Your task to perform on an android device: open the mobile data screen to see how much data has been used Image 0: 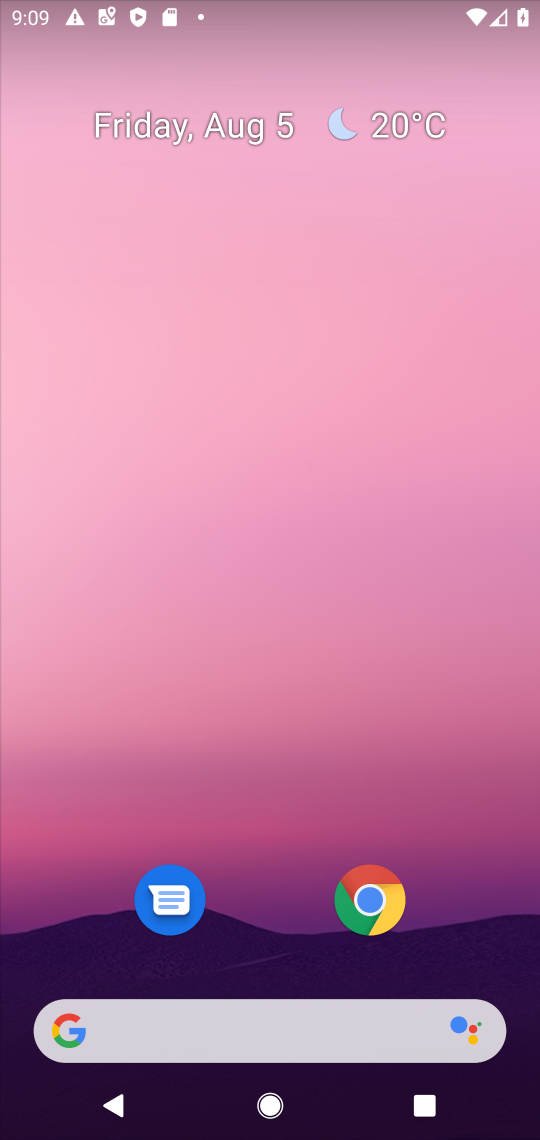
Step 0: press home button
Your task to perform on an android device: open the mobile data screen to see how much data has been used Image 1: 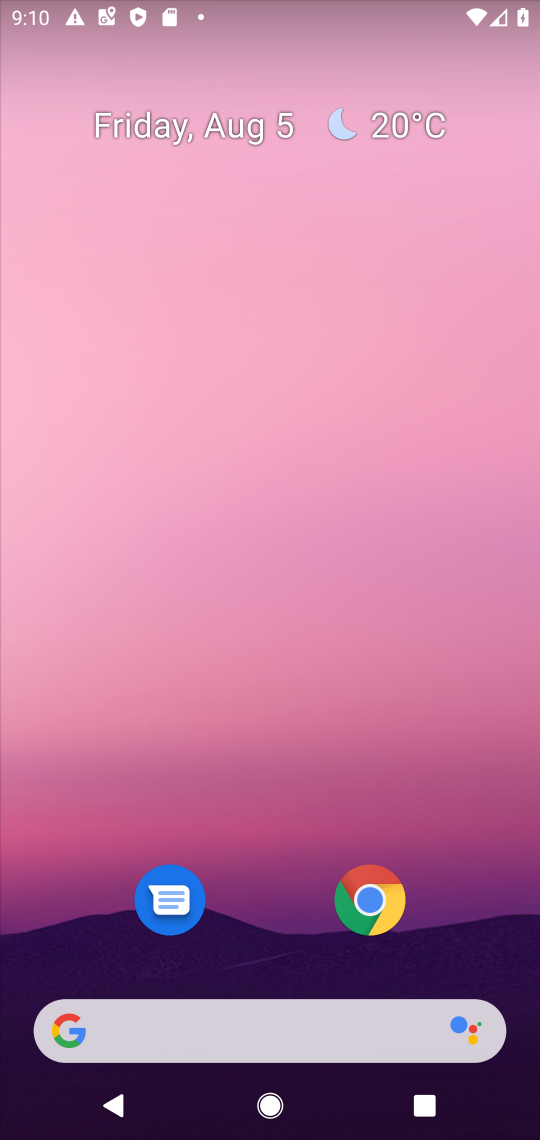
Step 1: drag from (506, 15) to (429, 947)
Your task to perform on an android device: open the mobile data screen to see how much data has been used Image 2: 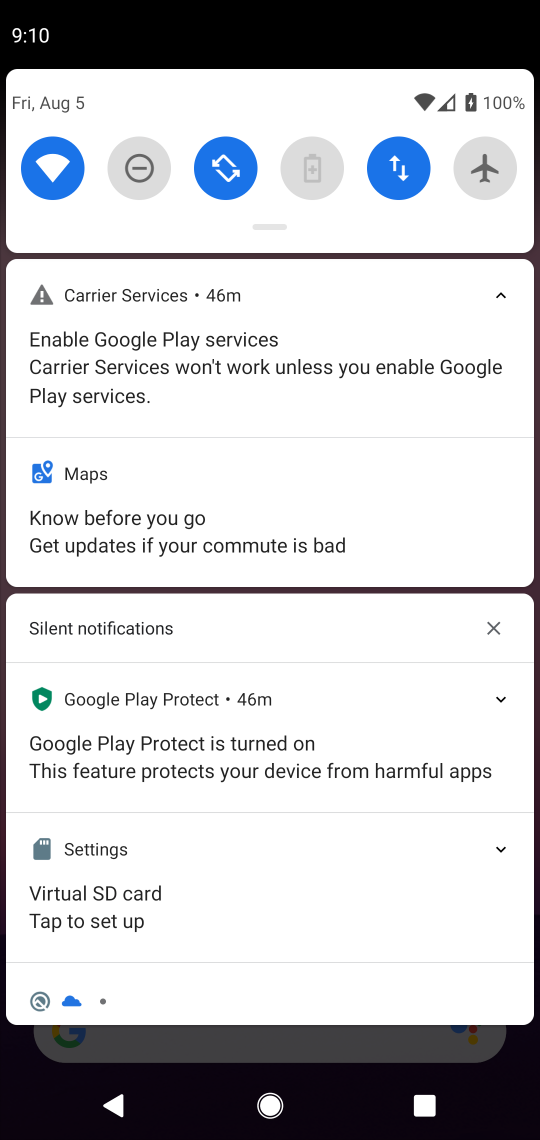
Step 2: click (383, 180)
Your task to perform on an android device: open the mobile data screen to see how much data has been used Image 3: 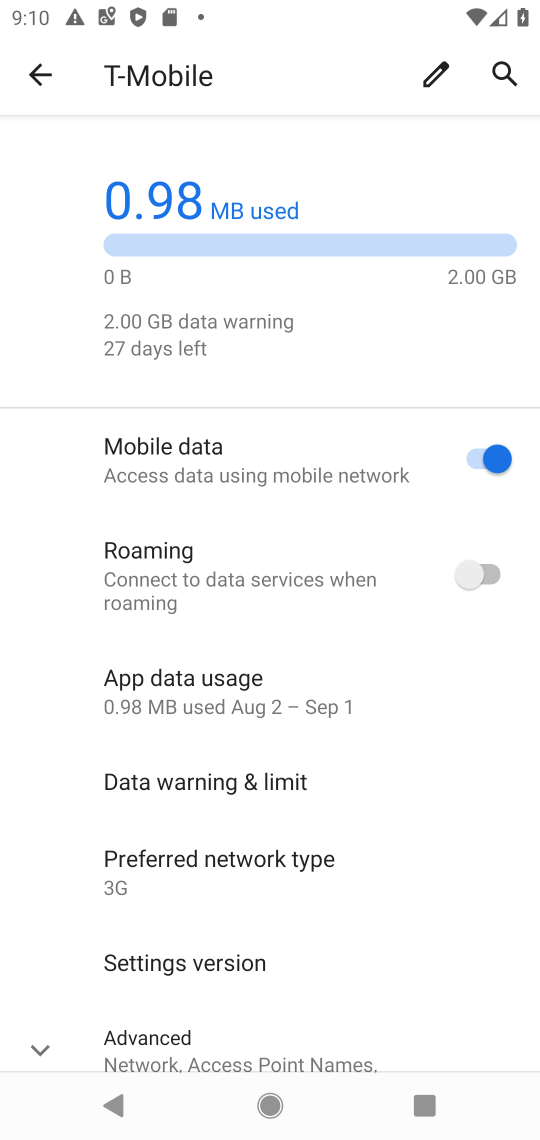
Step 3: task complete